Your task to perform on an android device: stop showing notifications on the lock screen Image 0: 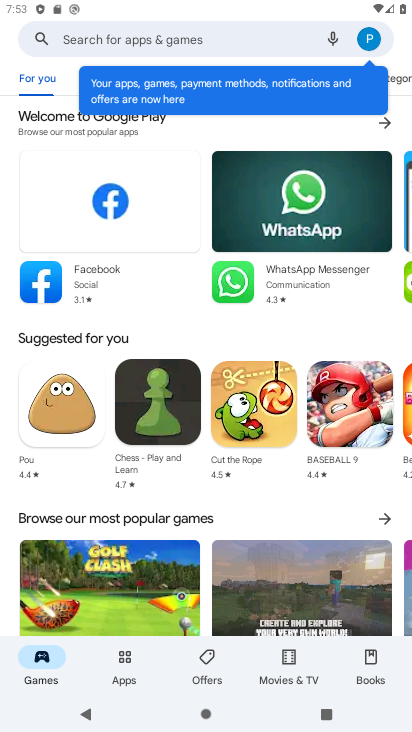
Step 0: press home button
Your task to perform on an android device: stop showing notifications on the lock screen Image 1: 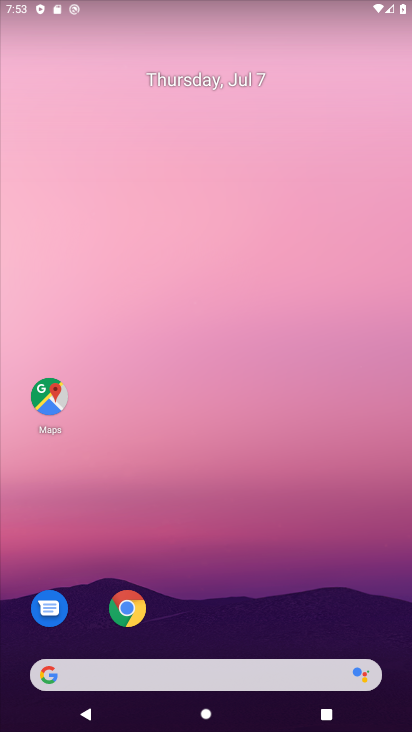
Step 1: drag from (369, 642) to (393, 117)
Your task to perform on an android device: stop showing notifications on the lock screen Image 2: 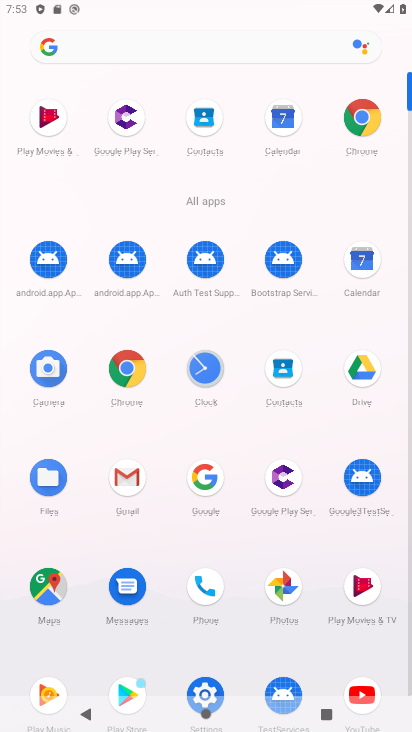
Step 2: drag from (310, 546) to (315, 347)
Your task to perform on an android device: stop showing notifications on the lock screen Image 3: 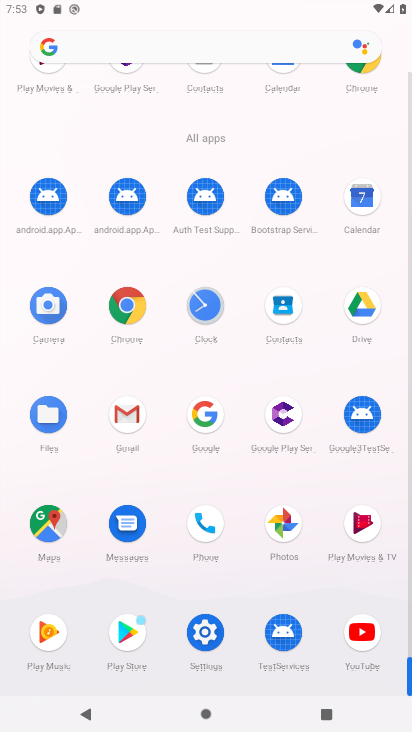
Step 3: click (197, 633)
Your task to perform on an android device: stop showing notifications on the lock screen Image 4: 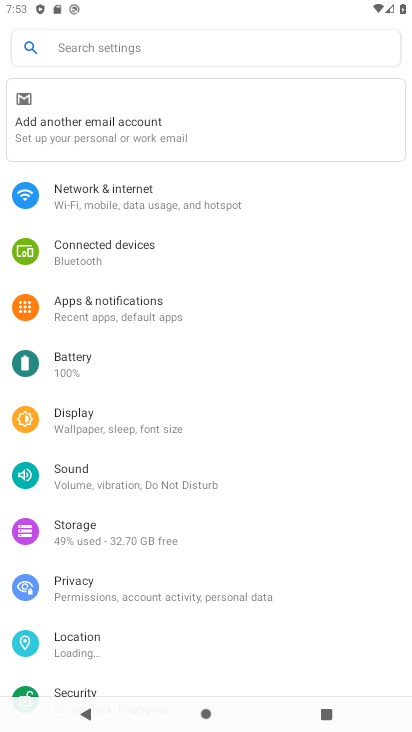
Step 4: click (179, 313)
Your task to perform on an android device: stop showing notifications on the lock screen Image 5: 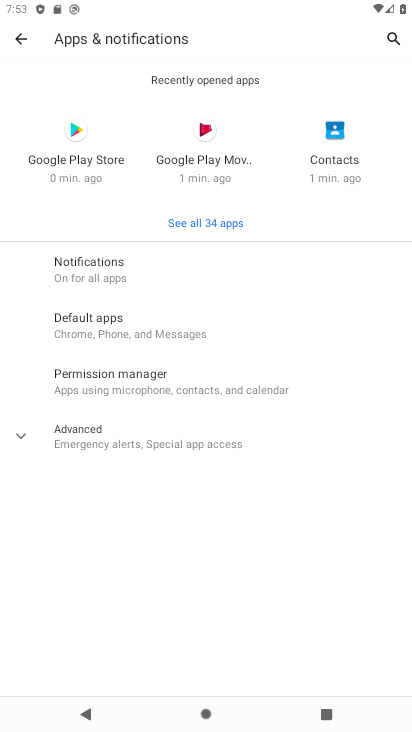
Step 5: click (164, 274)
Your task to perform on an android device: stop showing notifications on the lock screen Image 6: 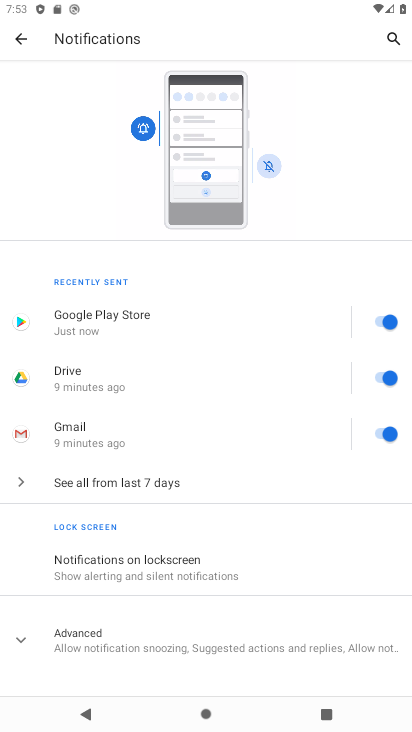
Step 6: click (230, 575)
Your task to perform on an android device: stop showing notifications on the lock screen Image 7: 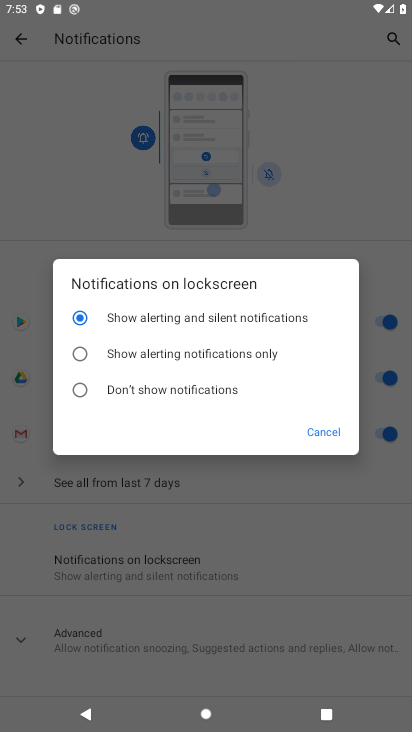
Step 7: click (202, 387)
Your task to perform on an android device: stop showing notifications on the lock screen Image 8: 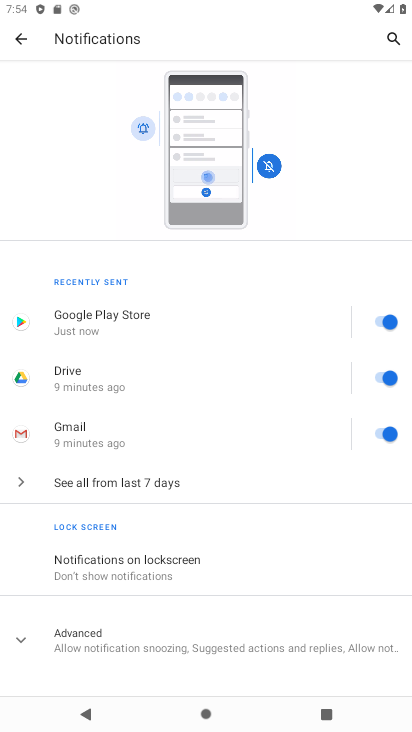
Step 8: task complete